Your task to perform on an android device: create a new album in the google photos Image 0: 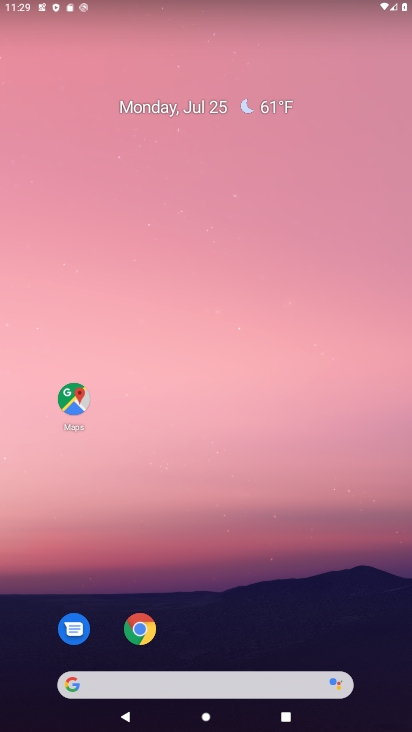
Step 0: drag from (190, 533) to (174, 129)
Your task to perform on an android device: create a new album in the google photos Image 1: 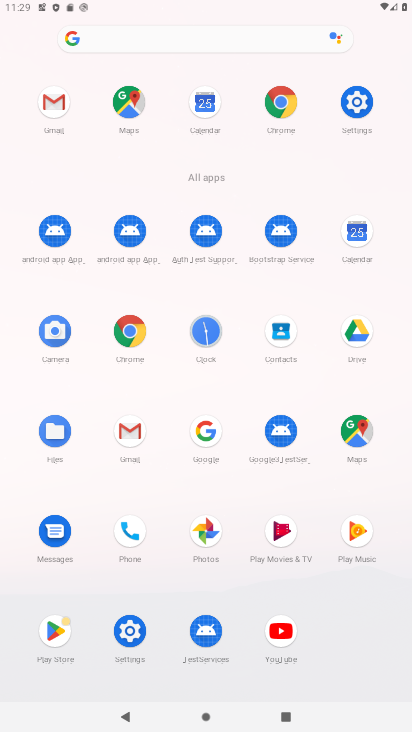
Step 1: click (213, 540)
Your task to perform on an android device: create a new album in the google photos Image 2: 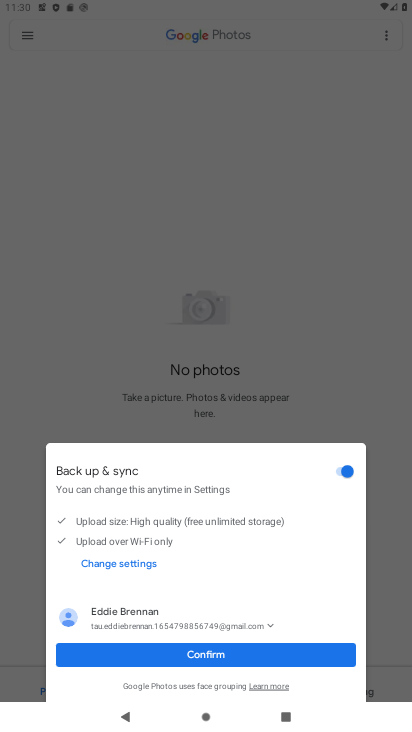
Step 2: click (242, 660)
Your task to perform on an android device: create a new album in the google photos Image 3: 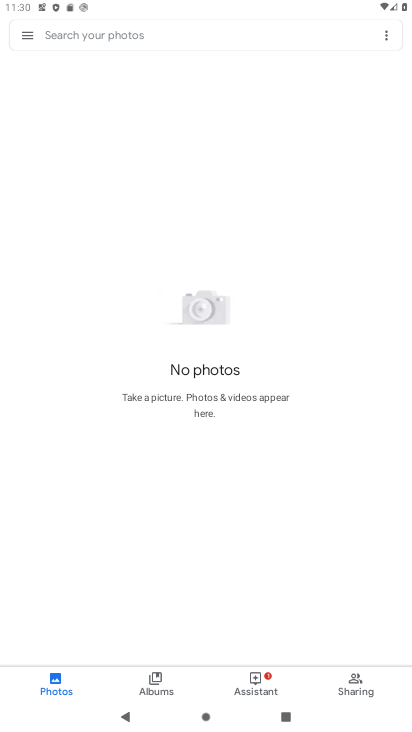
Step 3: click (379, 33)
Your task to perform on an android device: create a new album in the google photos Image 4: 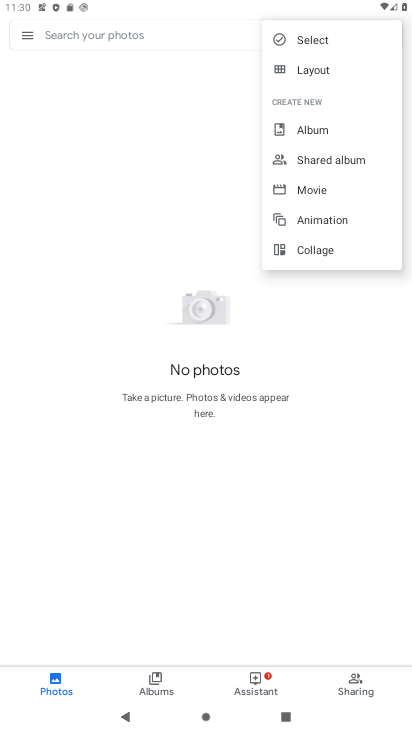
Step 4: click (299, 134)
Your task to perform on an android device: create a new album in the google photos Image 5: 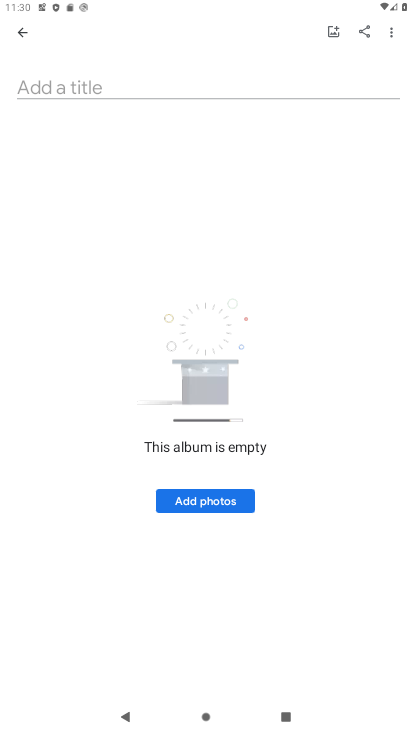
Step 5: type "bfbf"
Your task to perform on an android device: create a new album in the google photos Image 6: 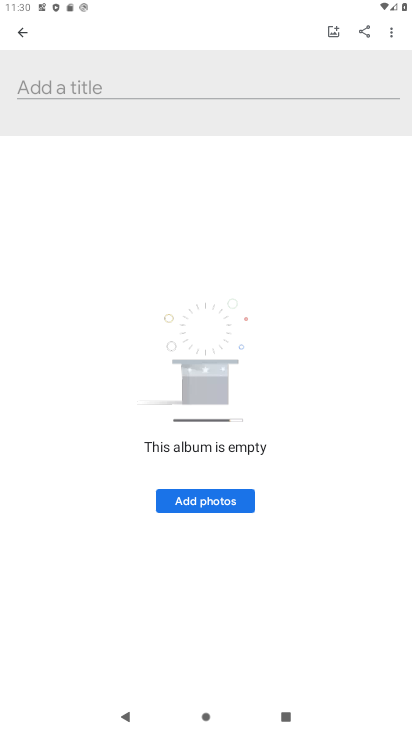
Step 6: click (73, 79)
Your task to perform on an android device: create a new album in the google photos Image 7: 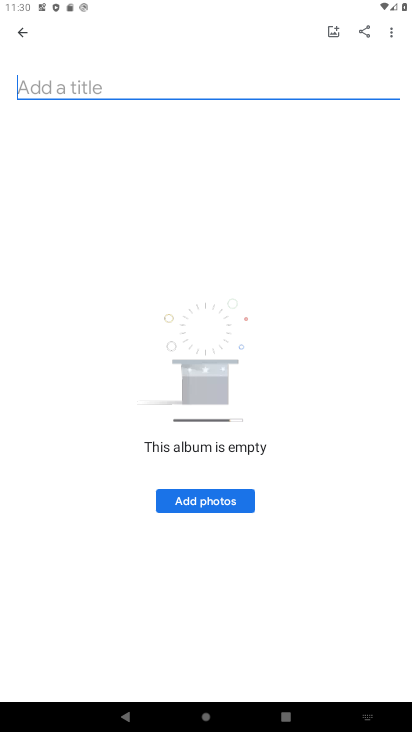
Step 7: type "bfbf"
Your task to perform on an android device: create a new album in the google photos Image 8: 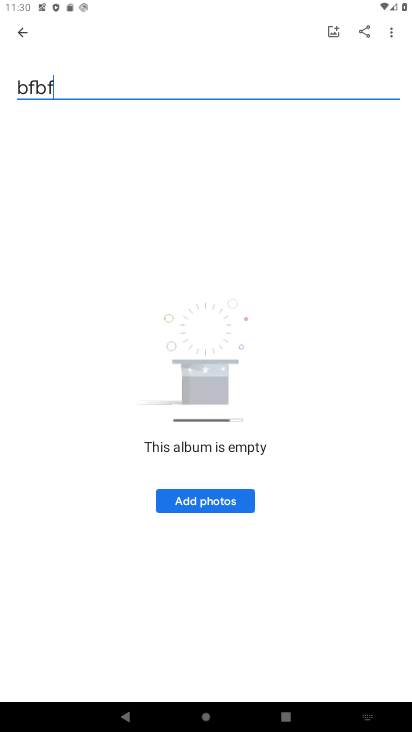
Step 8: click (182, 506)
Your task to perform on an android device: create a new album in the google photos Image 9: 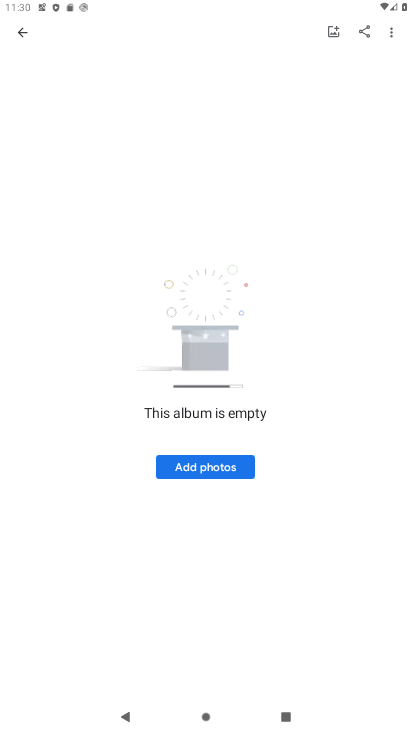
Step 9: click (191, 466)
Your task to perform on an android device: create a new album in the google photos Image 10: 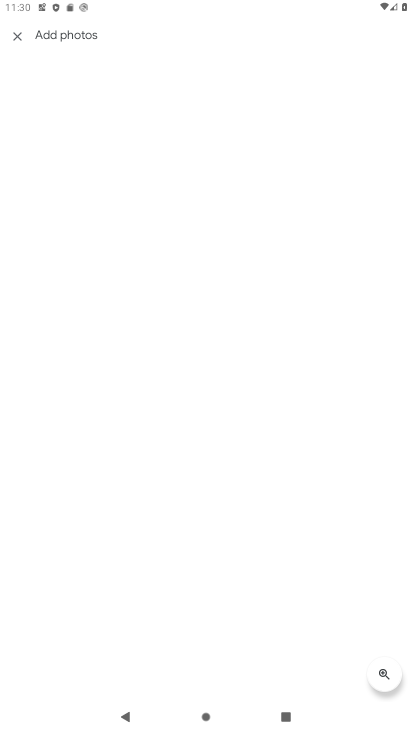
Step 10: click (12, 33)
Your task to perform on an android device: create a new album in the google photos Image 11: 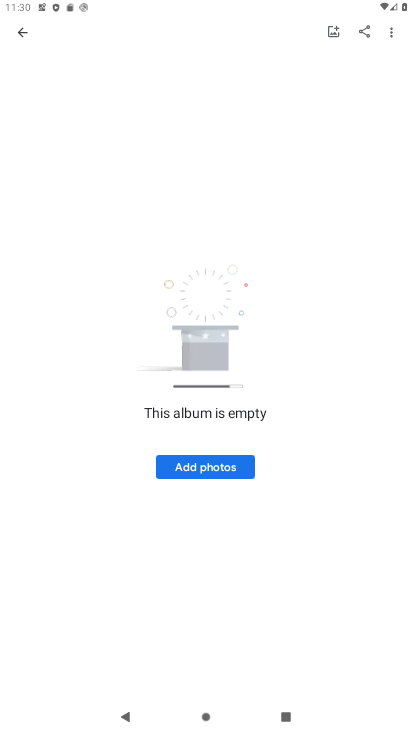
Step 11: task complete